Your task to perform on an android device: install app "Life360: Find Family & Friends" Image 0: 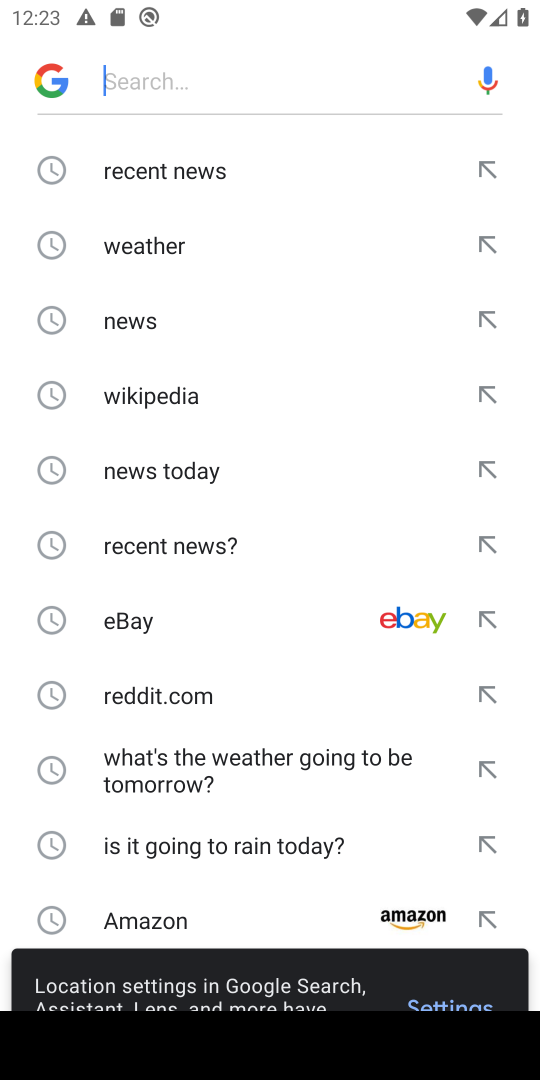
Step 0: press home button
Your task to perform on an android device: install app "Life360: Find Family & Friends" Image 1: 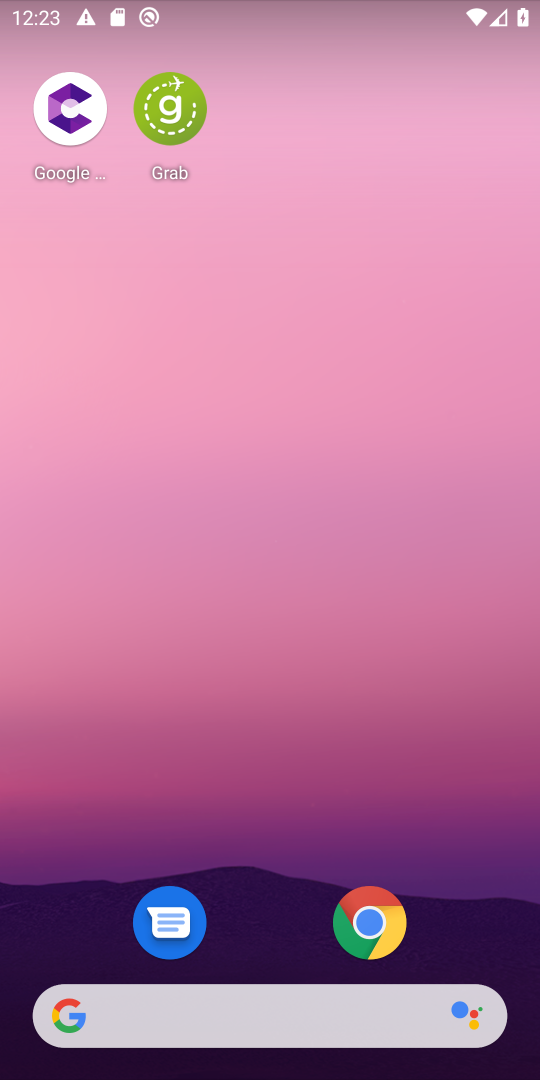
Step 1: drag from (216, 885) to (287, 495)
Your task to perform on an android device: install app "Life360: Find Family & Friends" Image 2: 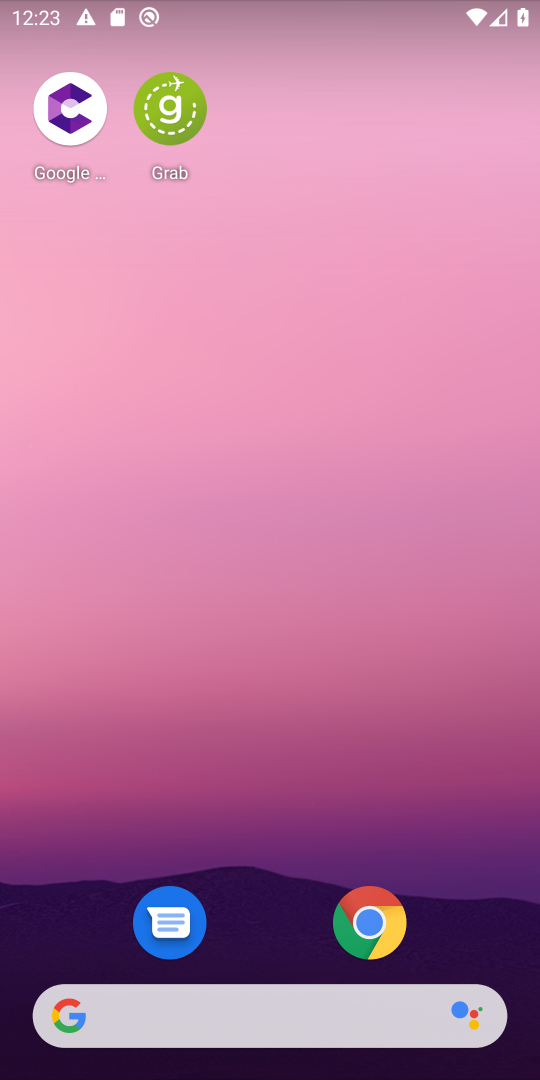
Step 2: drag from (277, 940) to (324, 286)
Your task to perform on an android device: install app "Life360: Find Family & Friends" Image 3: 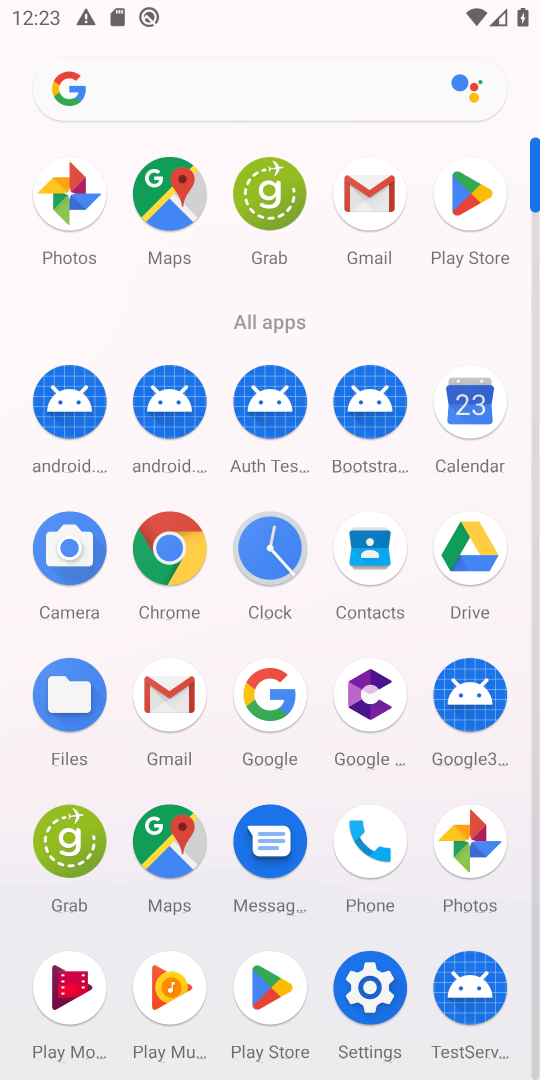
Step 3: click (470, 221)
Your task to perform on an android device: install app "Life360: Find Family & Friends" Image 4: 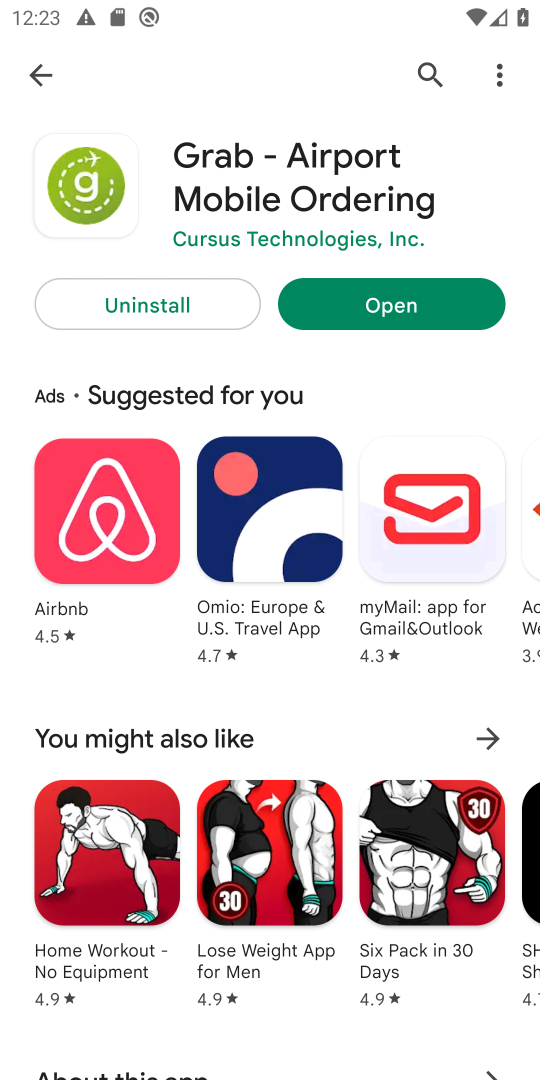
Step 4: click (33, 76)
Your task to perform on an android device: install app "Life360: Find Family & Friends" Image 5: 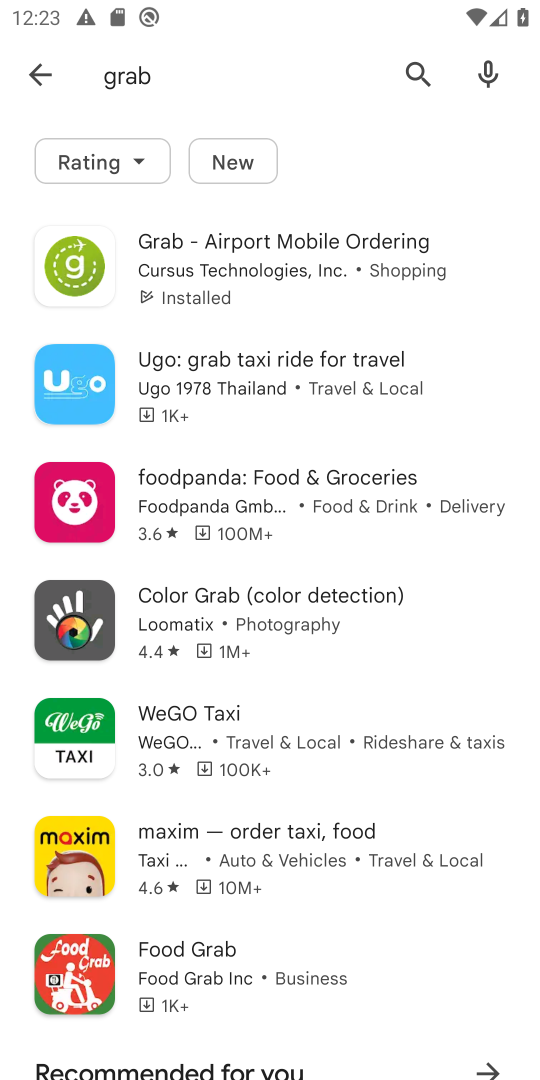
Step 5: click (123, 79)
Your task to perform on an android device: install app "Life360: Find Family & Friends" Image 6: 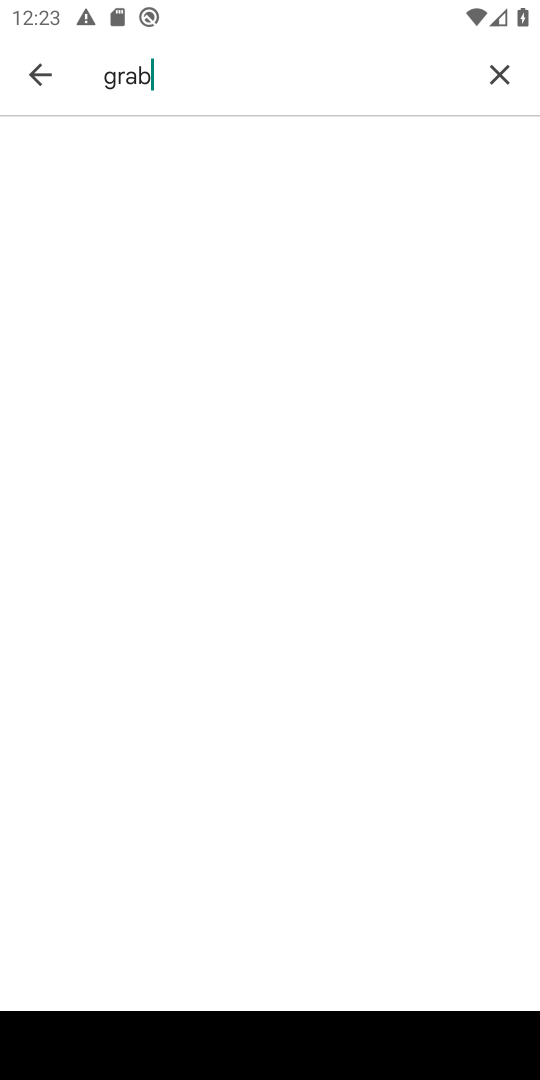
Step 6: click (490, 69)
Your task to perform on an android device: install app "Life360: Find Family & Friends" Image 7: 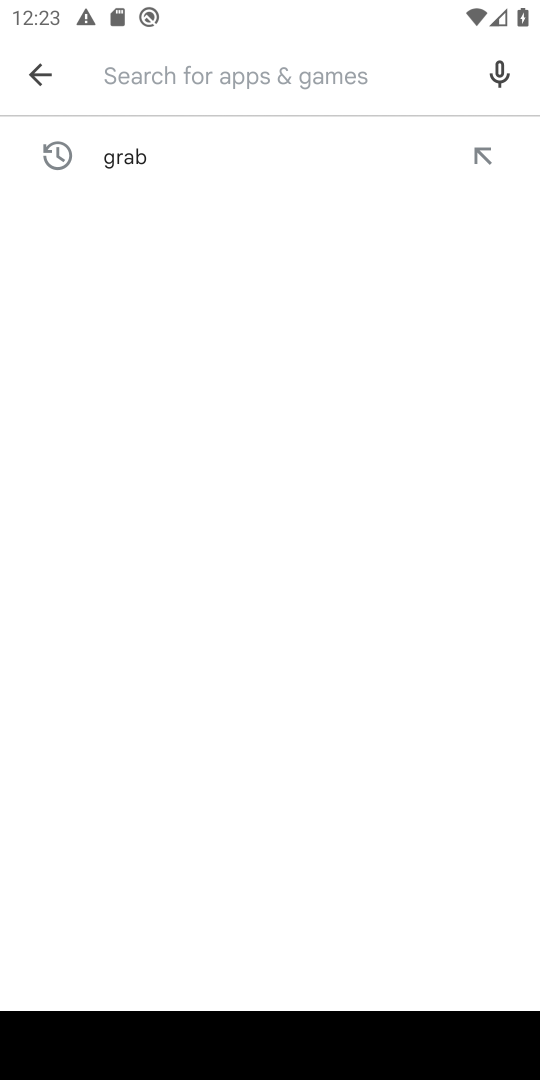
Step 7: type "life360"
Your task to perform on an android device: install app "Life360: Find Family & Friends" Image 8: 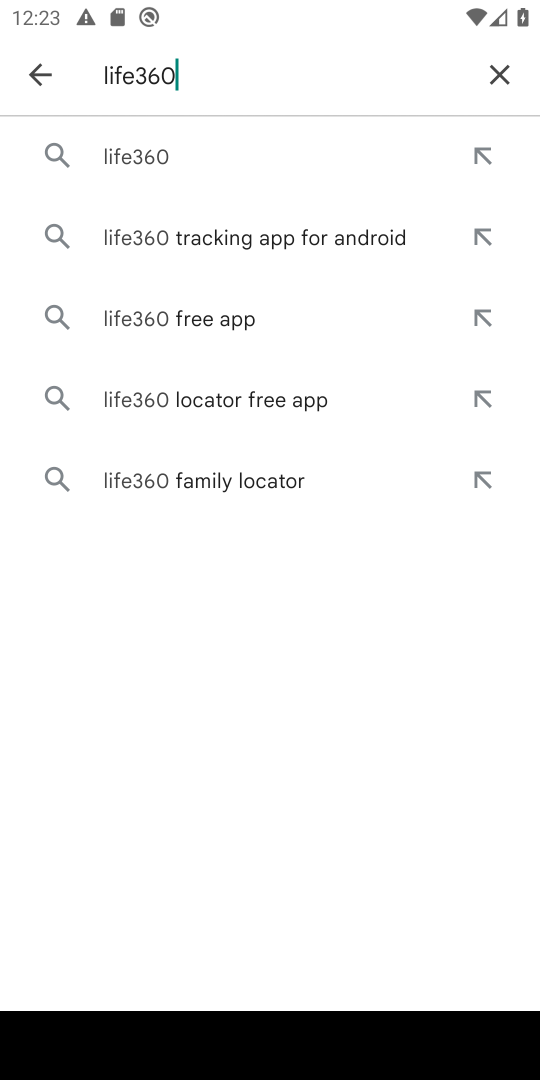
Step 8: click (159, 148)
Your task to perform on an android device: install app "Life360: Find Family & Friends" Image 9: 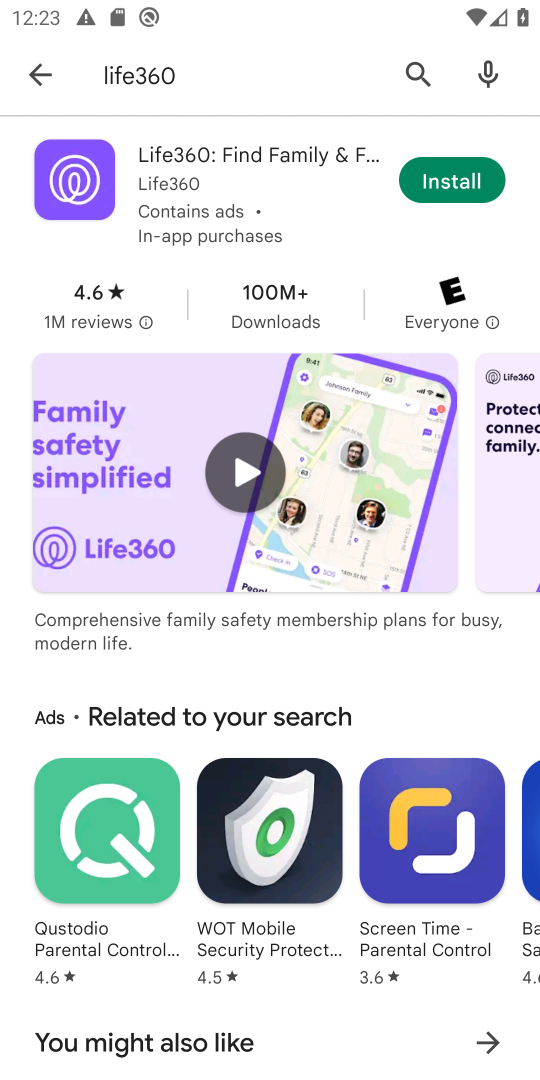
Step 9: click (461, 174)
Your task to perform on an android device: install app "Life360: Find Family & Friends" Image 10: 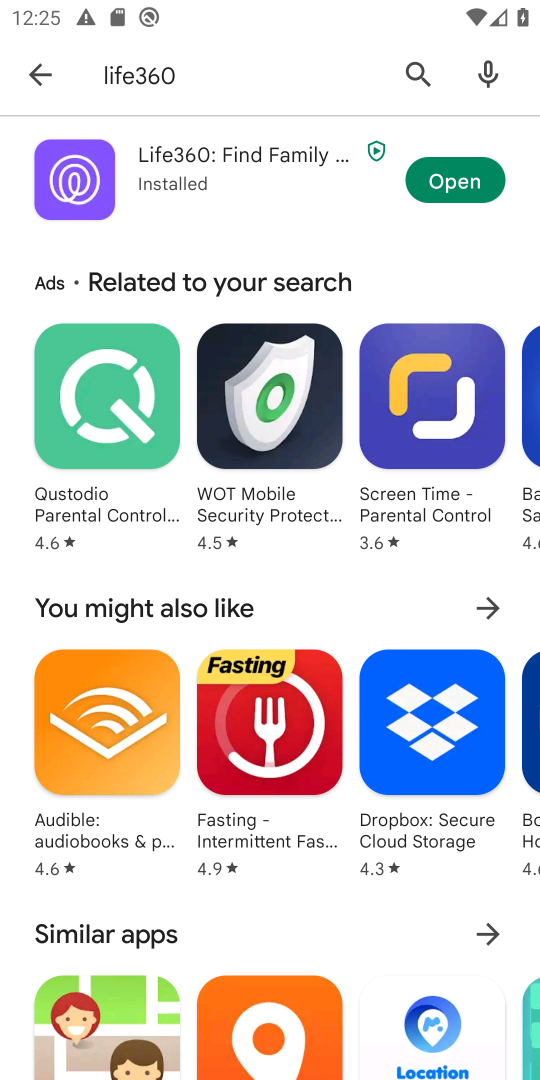
Step 10: task complete